Your task to perform on an android device: turn off priority inbox in the gmail app Image 0: 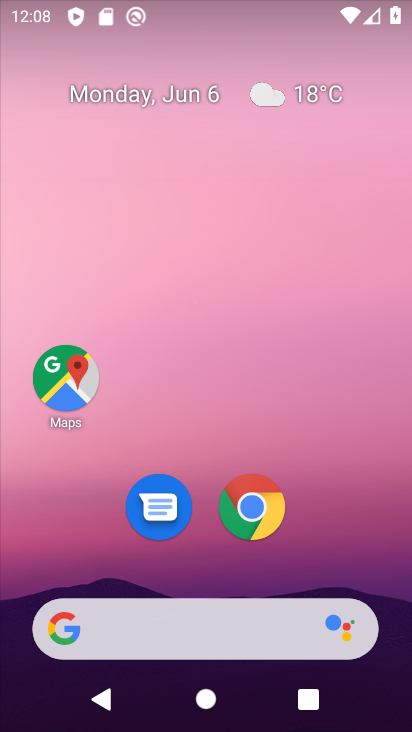
Step 0: drag from (230, 588) to (323, 26)
Your task to perform on an android device: turn off priority inbox in the gmail app Image 1: 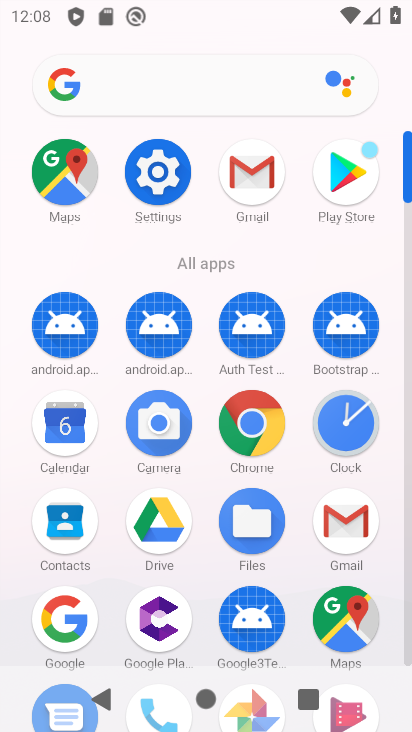
Step 1: click (349, 521)
Your task to perform on an android device: turn off priority inbox in the gmail app Image 2: 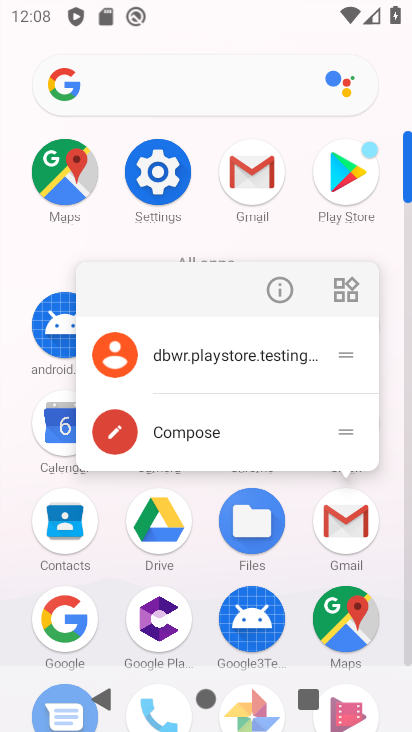
Step 2: click (340, 512)
Your task to perform on an android device: turn off priority inbox in the gmail app Image 3: 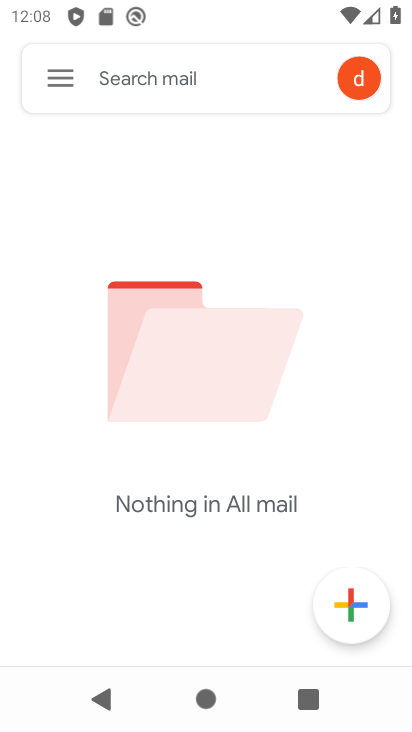
Step 3: click (72, 73)
Your task to perform on an android device: turn off priority inbox in the gmail app Image 4: 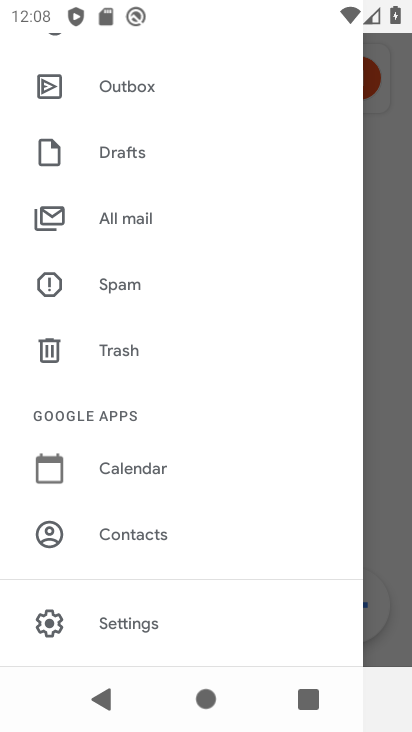
Step 4: click (111, 625)
Your task to perform on an android device: turn off priority inbox in the gmail app Image 5: 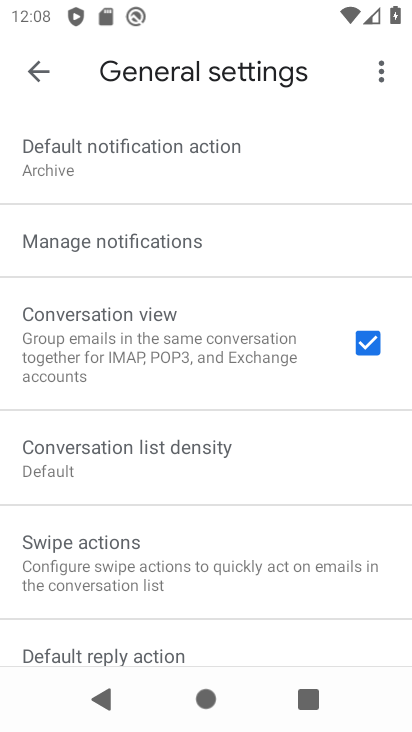
Step 5: click (30, 83)
Your task to perform on an android device: turn off priority inbox in the gmail app Image 6: 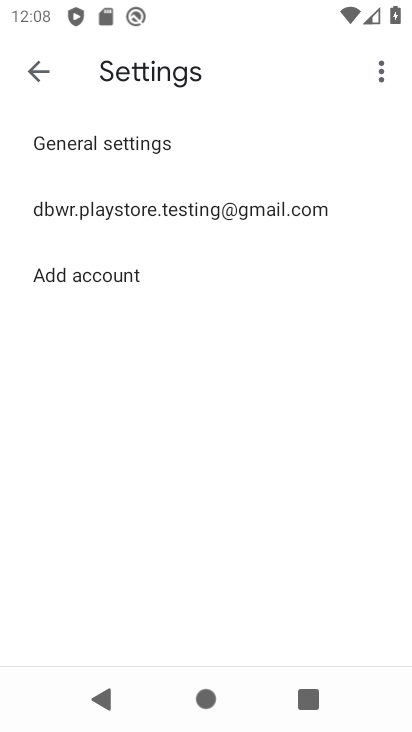
Step 6: click (128, 209)
Your task to perform on an android device: turn off priority inbox in the gmail app Image 7: 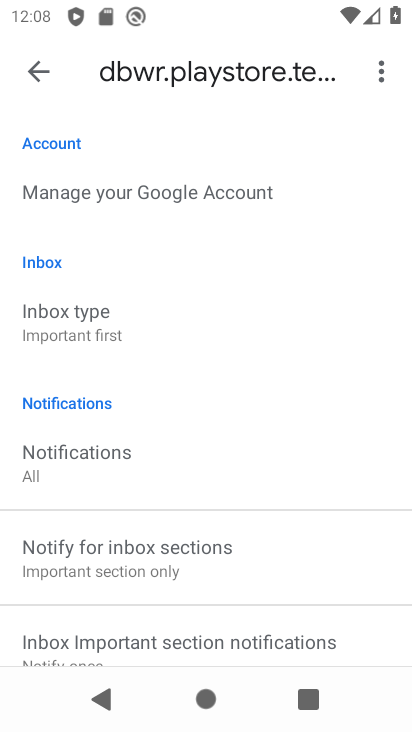
Step 7: click (109, 332)
Your task to perform on an android device: turn off priority inbox in the gmail app Image 8: 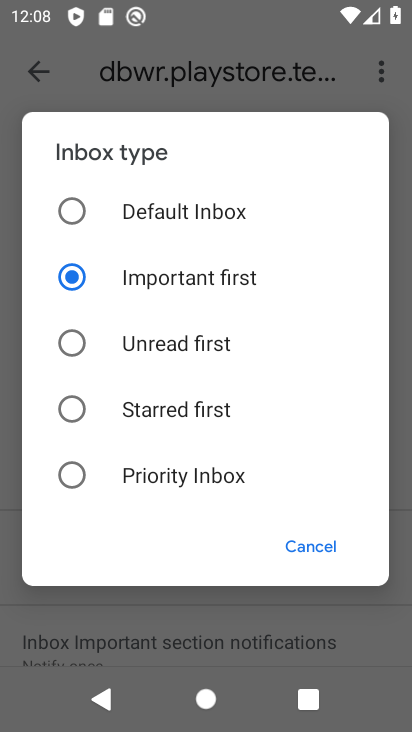
Step 8: click (91, 199)
Your task to perform on an android device: turn off priority inbox in the gmail app Image 9: 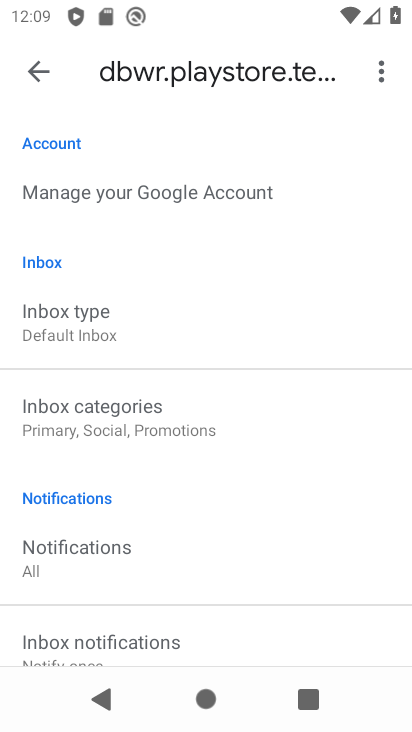
Step 9: task complete